Your task to perform on an android device: Clear all items from cart on newegg.com. Add usb-a to usb-b to the cart on newegg.com Image 0: 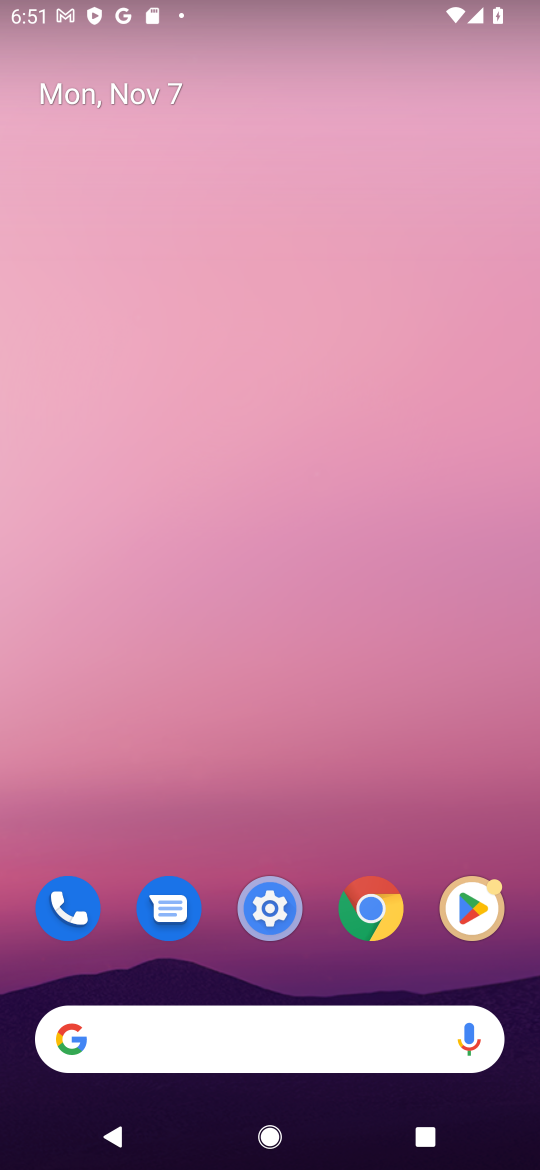
Step 0: click (318, 1040)
Your task to perform on an android device: Clear all items from cart on newegg.com. Add usb-a to usb-b to the cart on newegg.com Image 1: 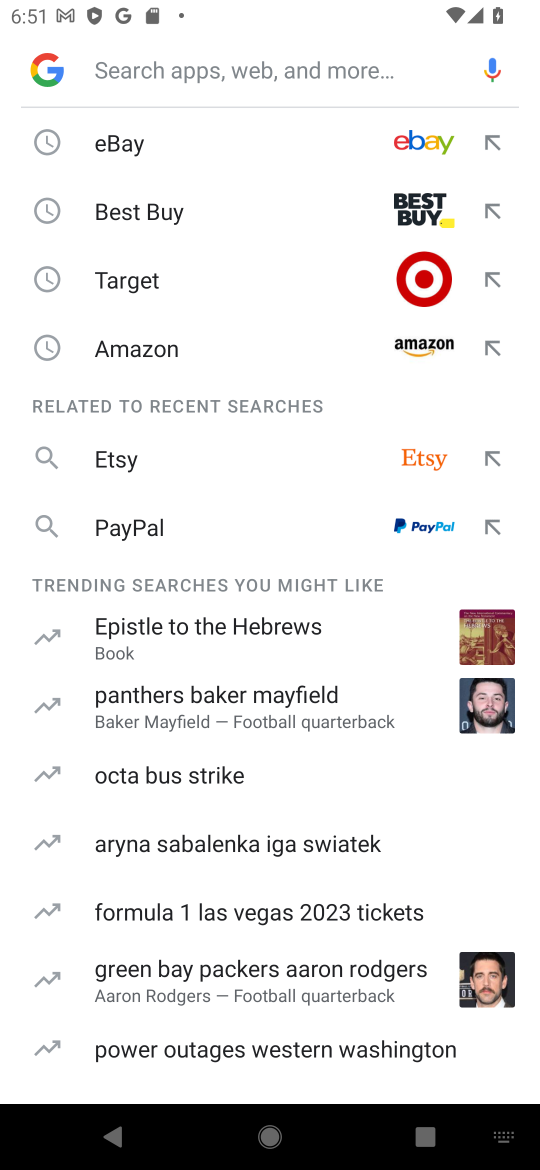
Step 1: type "newegg"
Your task to perform on an android device: Clear all items from cart on newegg.com. Add usb-a to usb-b to the cart on newegg.com Image 2: 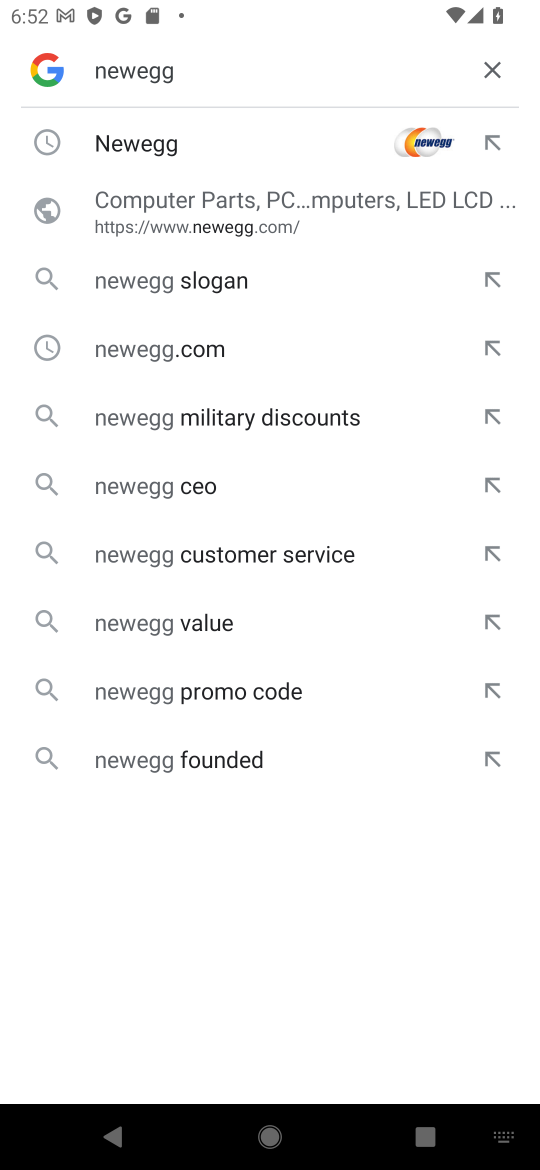
Step 2: click (278, 162)
Your task to perform on an android device: Clear all items from cart on newegg.com. Add usb-a to usb-b to the cart on newegg.com Image 3: 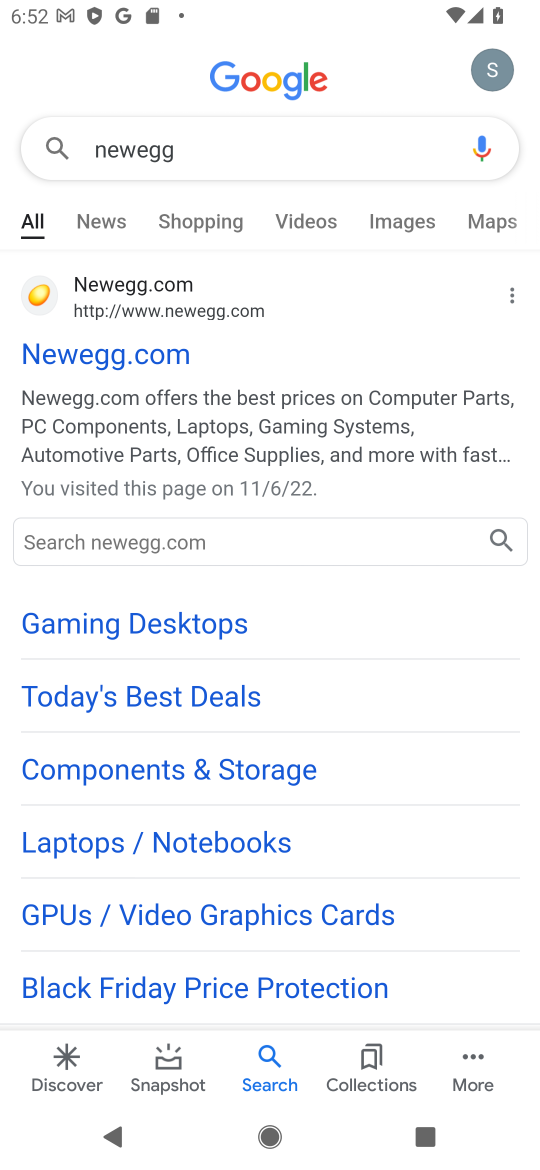
Step 3: click (143, 354)
Your task to perform on an android device: Clear all items from cart on newegg.com. Add usb-a to usb-b to the cart on newegg.com Image 4: 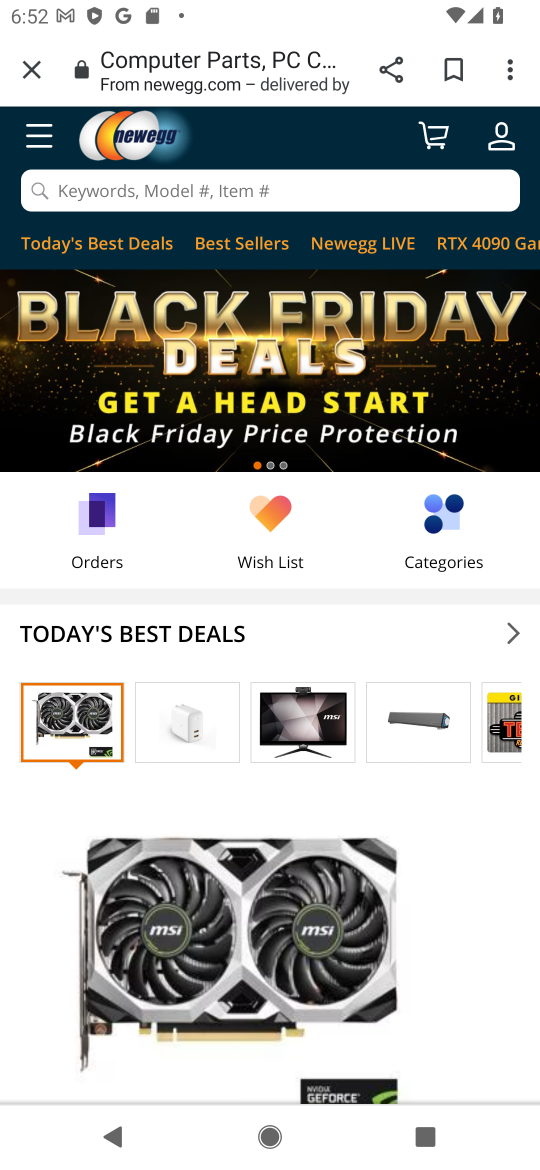
Step 4: task complete